Your task to perform on an android device: choose inbox layout in the gmail app Image 0: 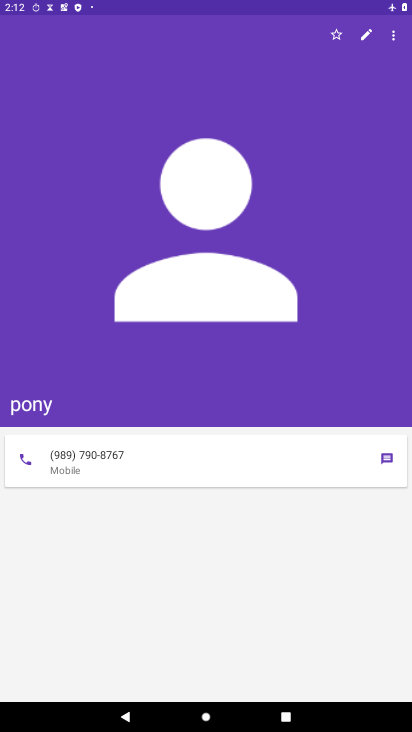
Step 0: press home button
Your task to perform on an android device: choose inbox layout in the gmail app Image 1: 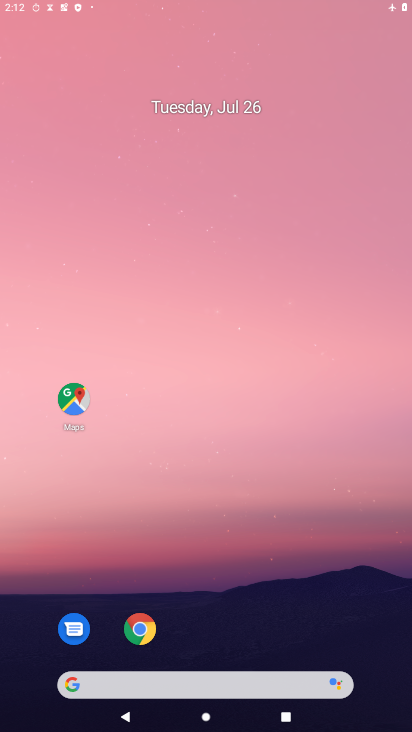
Step 1: drag from (251, 716) to (334, 16)
Your task to perform on an android device: choose inbox layout in the gmail app Image 2: 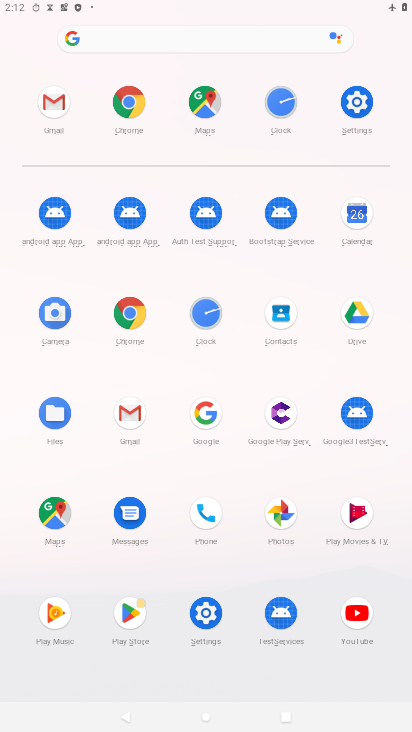
Step 2: click (134, 420)
Your task to perform on an android device: choose inbox layout in the gmail app Image 3: 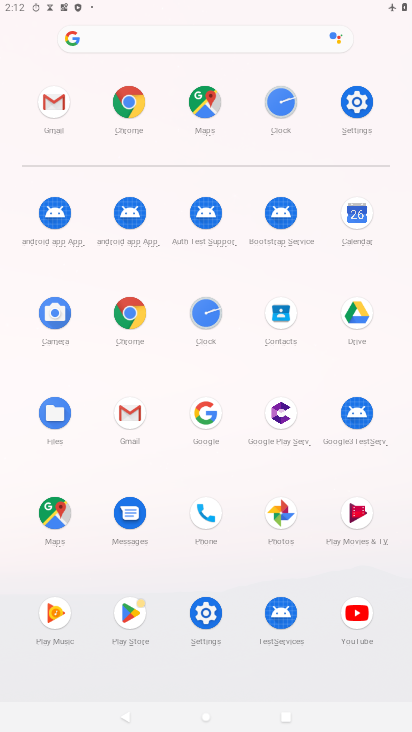
Step 3: click (124, 412)
Your task to perform on an android device: choose inbox layout in the gmail app Image 4: 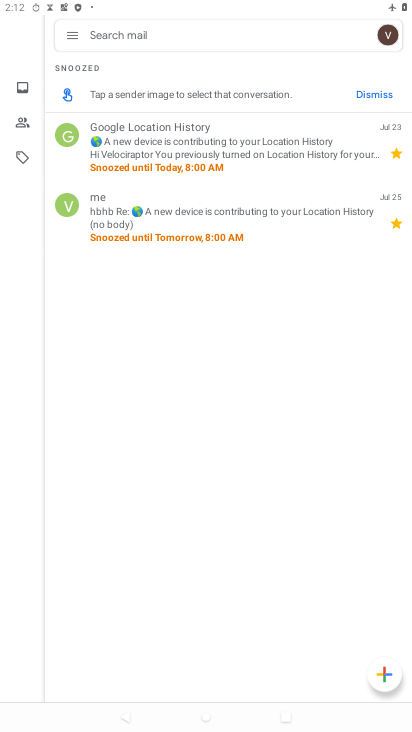
Step 4: click (64, 33)
Your task to perform on an android device: choose inbox layout in the gmail app Image 5: 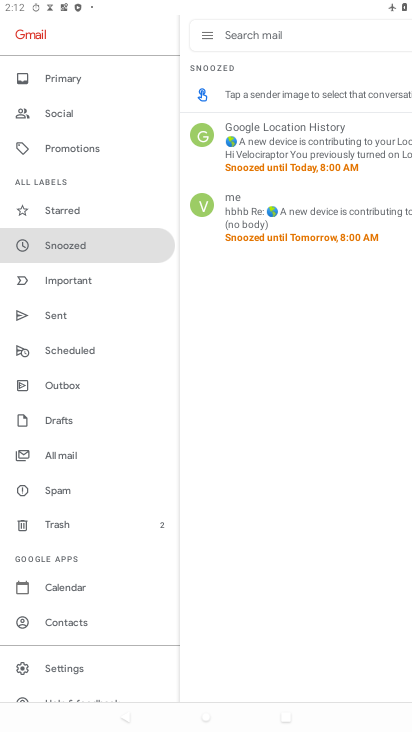
Step 5: click (91, 675)
Your task to perform on an android device: choose inbox layout in the gmail app Image 6: 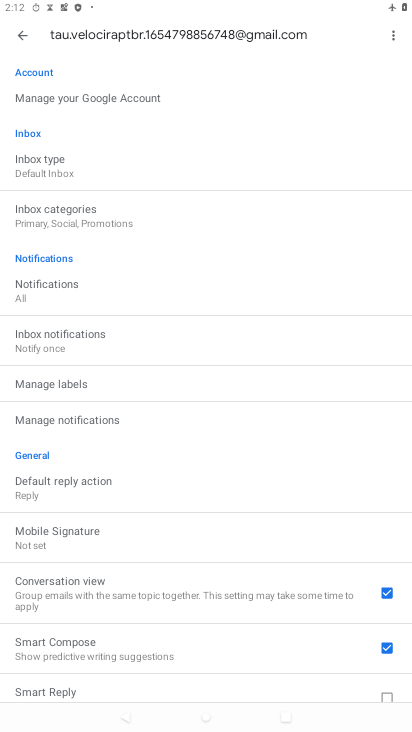
Step 6: click (96, 183)
Your task to perform on an android device: choose inbox layout in the gmail app Image 7: 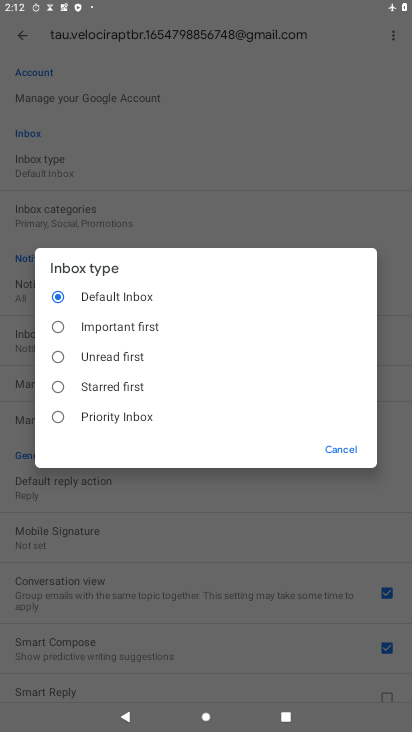
Step 7: click (57, 417)
Your task to perform on an android device: choose inbox layout in the gmail app Image 8: 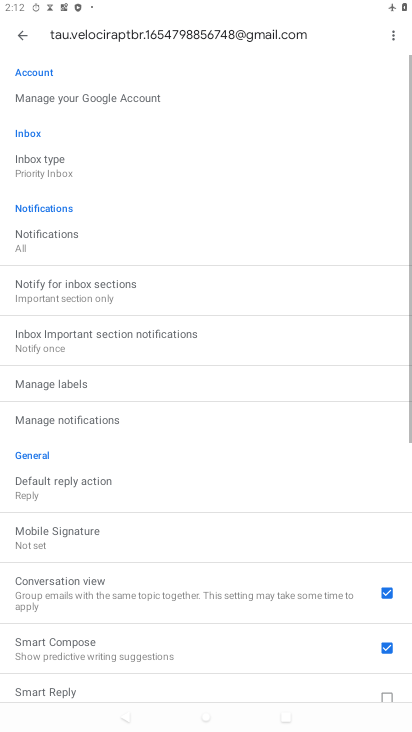
Step 8: task complete